Your task to perform on an android device: turn off location history Image 0: 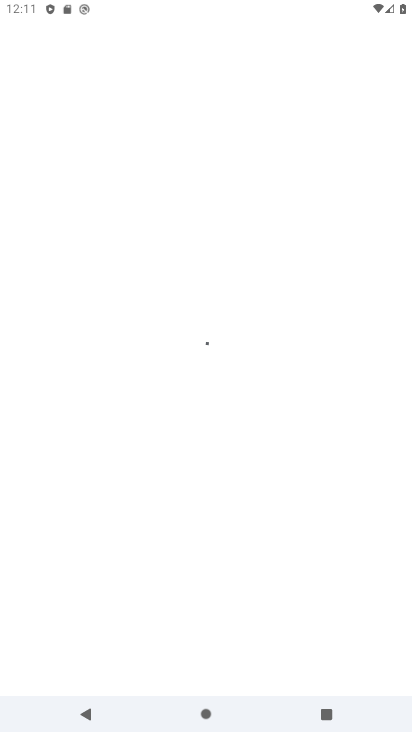
Step 0: press home button
Your task to perform on an android device: turn off location history Image 1: 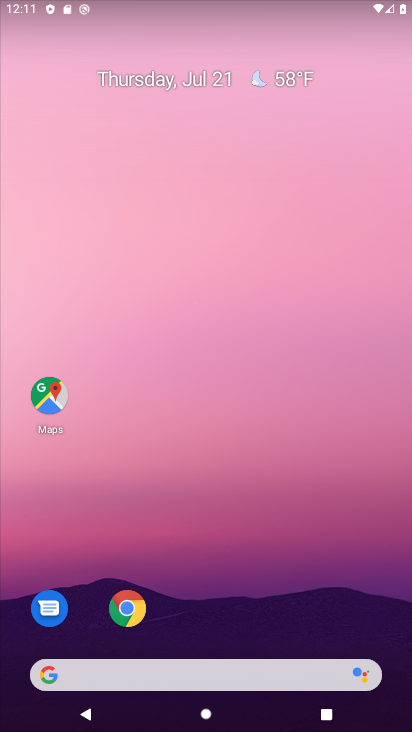
Step 1: drag from (215, 636) to (241, 149)
Your task to perform on an android device: turn off location history Image 2: 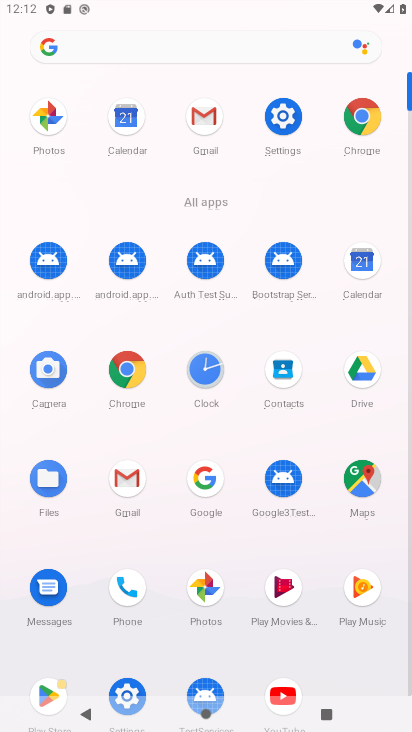
Step 2: click (277, 110)
Your task to perform on an android device: turn off location history Image 3: 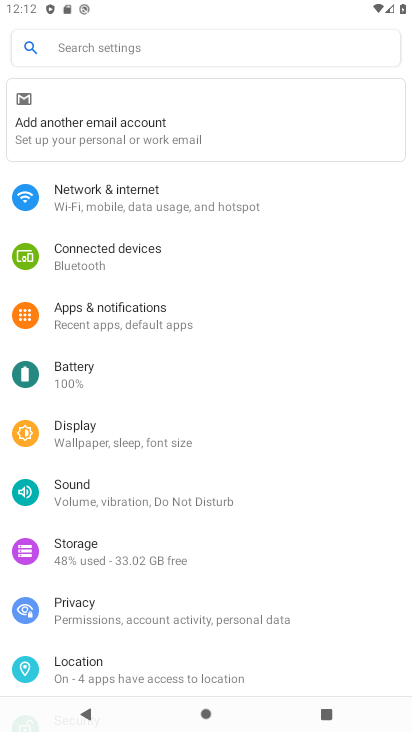
Step 3: click (118, 669)
Your task to perform on an android device: turn off location history Image 4: 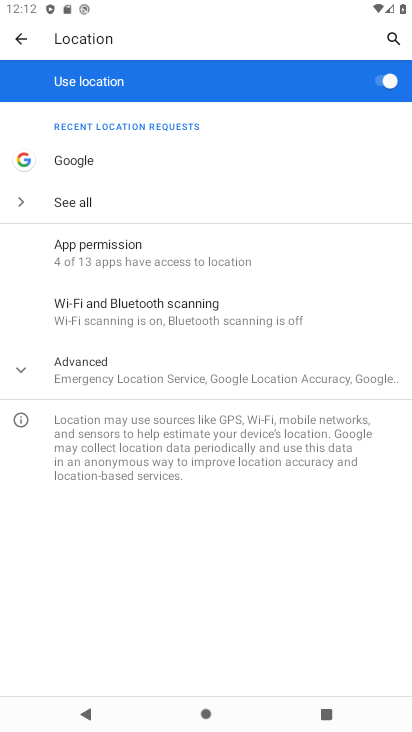
Step 4: click (22, 370)
Your task to perform on an android device: turn off location history Image 5: 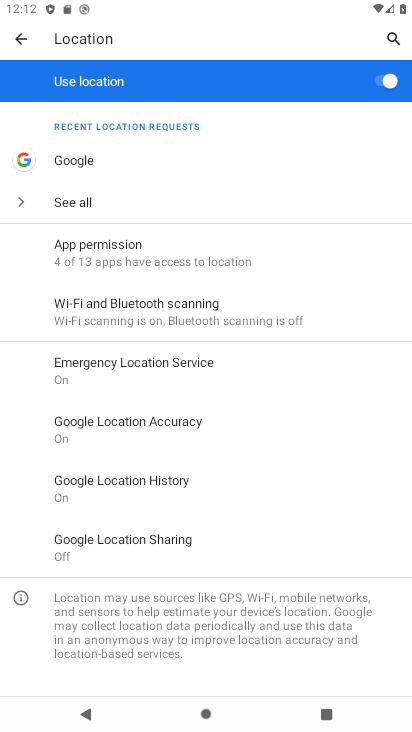
Step 5: click (142, 476)
Your task to perform on an android device: turn off location history Image 6: 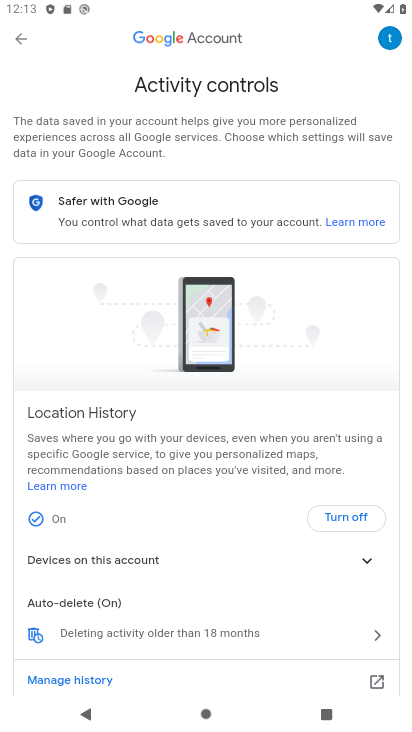
Step 6: click (337, 514)
Your task to perform on an android device: turn off location history Image 7: 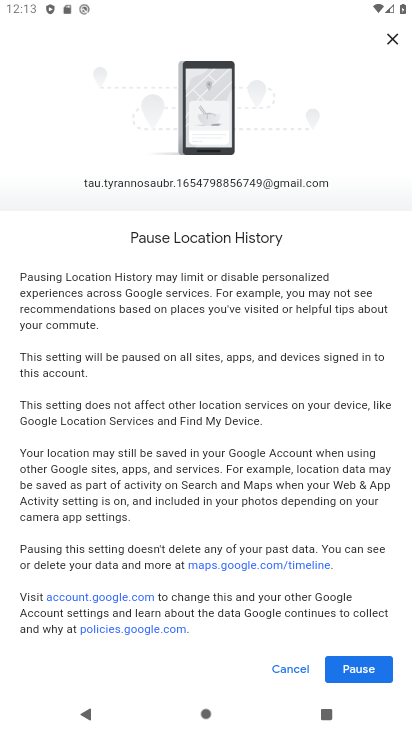
Step 7: click (363, 670)
Your task to perform on an android device: turn off location history Image 8: 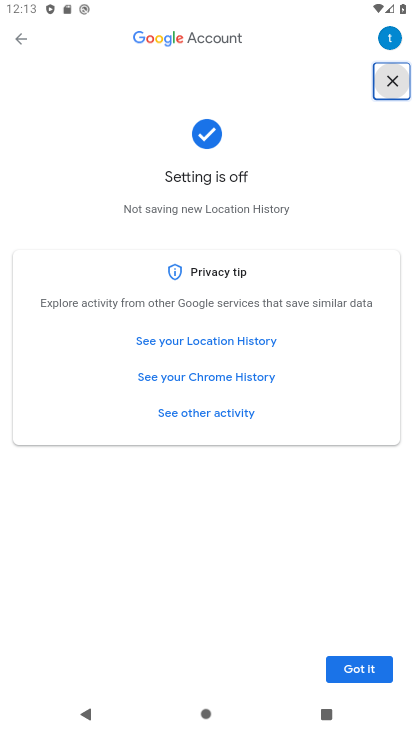
Step 8: click (357, 673)
Your task to perform on an android device: turn off location history Image 9: 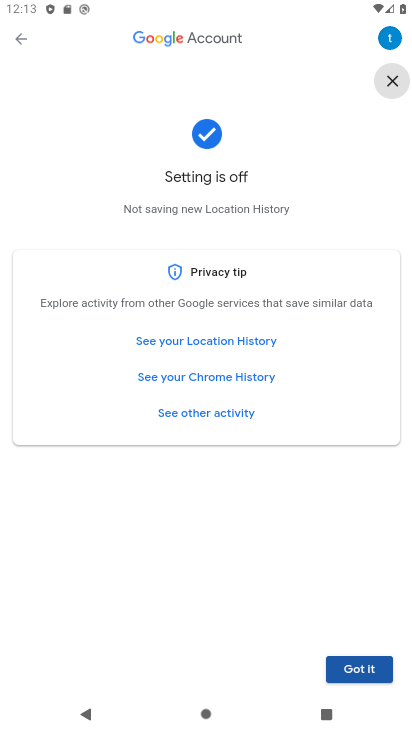
Step 9: task complete